Your task to perform on an android device: Go to Maps Image 0: 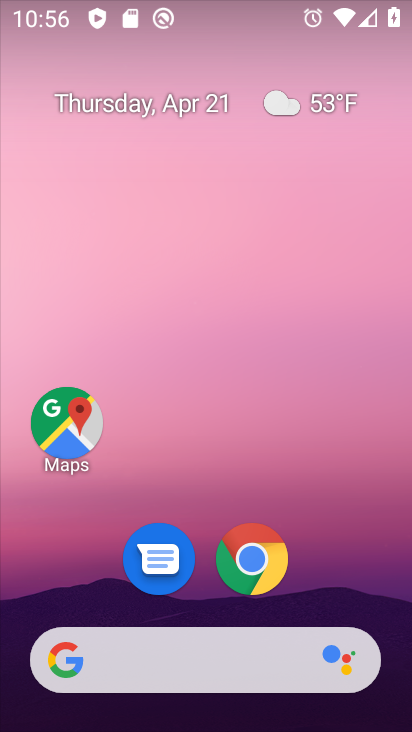
Step 0: drag from (270, 705) to (280, 163)
Your task to perform on an android device: Go to Maps Image 1: 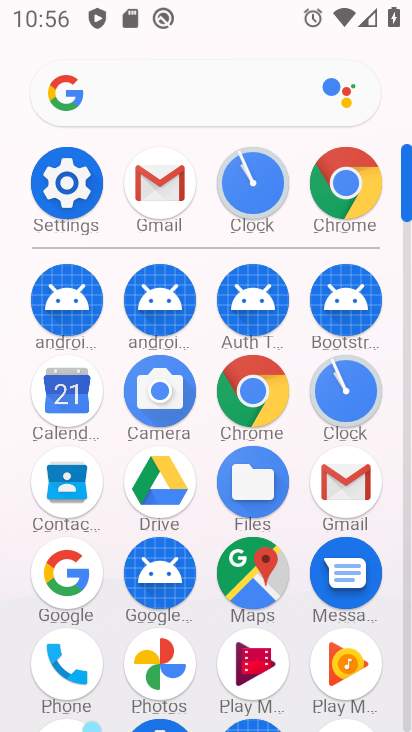
Step 1: click (247, 573)
Your task to perform on an android device: Go to Maps Image 2: 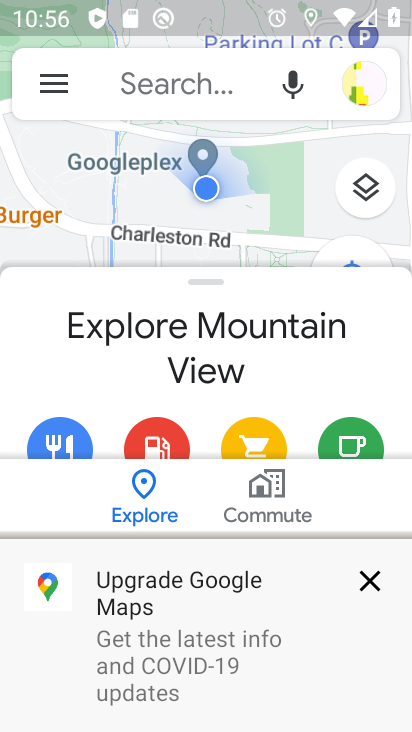
Step 2: click (367, 582)
Your task to perform on an android device: Go to Maps Image 3: 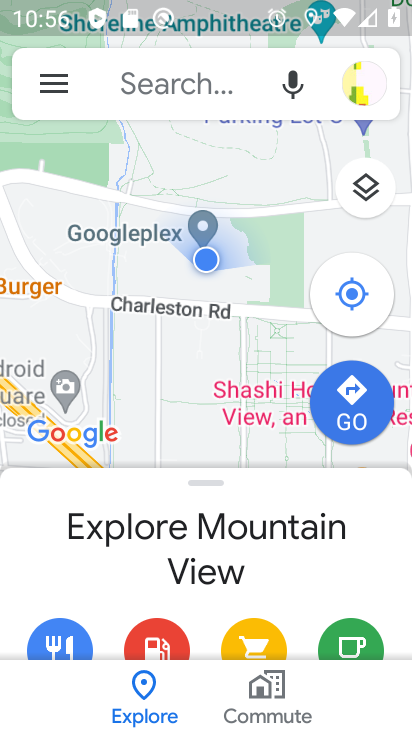
Step 3: task complete